Your task to perform on an android device: make emails show in primary in the gmail app Image 0: 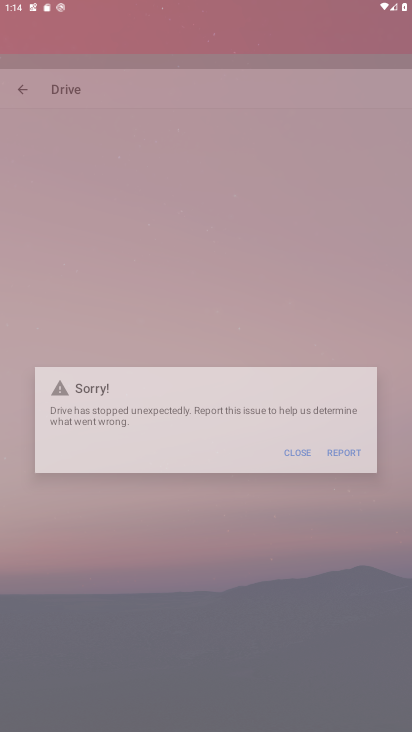
Step 0: click (360, 126)
Your task to perform on an android device: make emails show in primary in the gmail app Image 1: 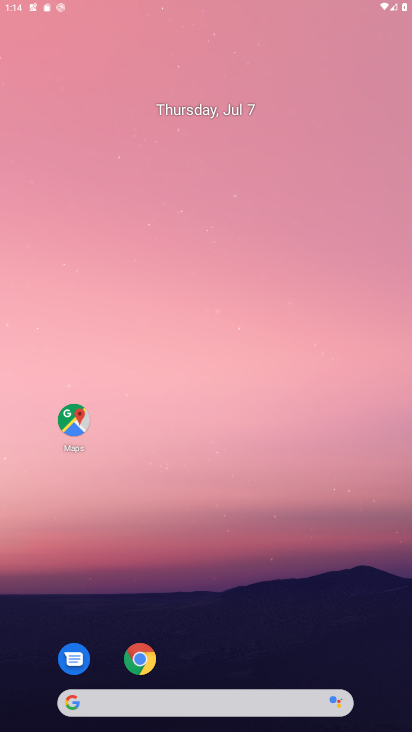
Step 1: drag from (216, 668) to (279, 263)
Your task to perform on an android device: make emails show in primary in the gmail app Image 2: 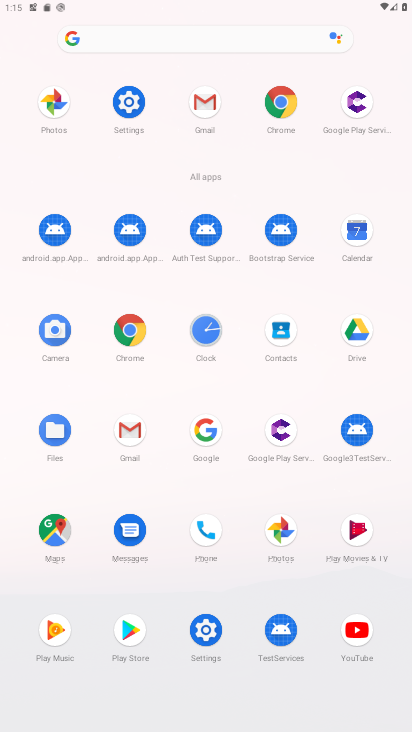
Step 2: drag from (241, 624) to (227, 270)
Your task to perform on an android device: make emails show in primary in the gmail app Image 3: 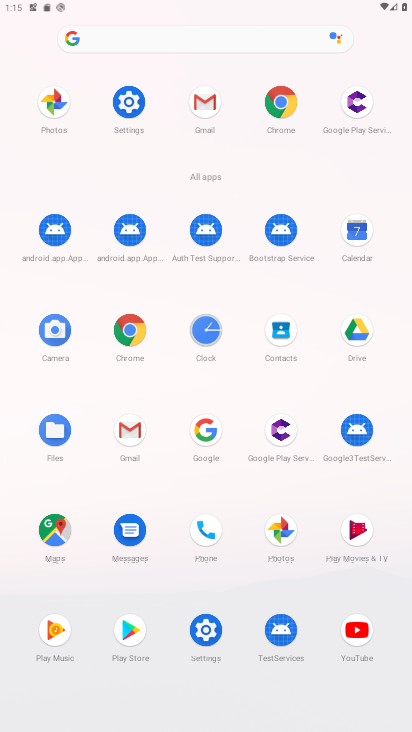
Step 3: click (124, 435)
Your task to perform on an android device: make emails show in primary in the gmail app Image 4: 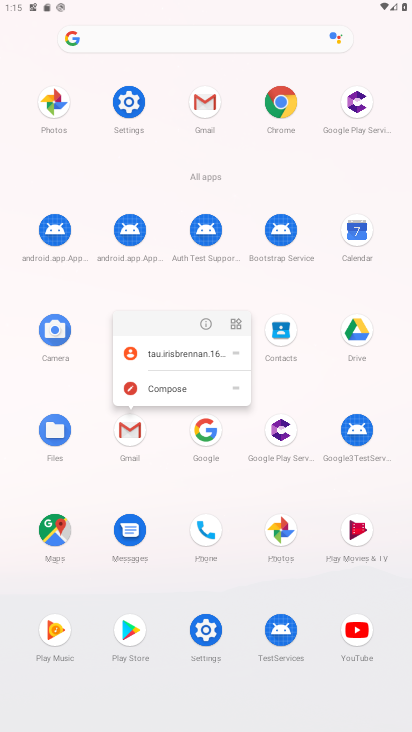
Step 4: click (202, 319)
Your task to perform on an android device: make emails show in primary in the gmail app Image 5: 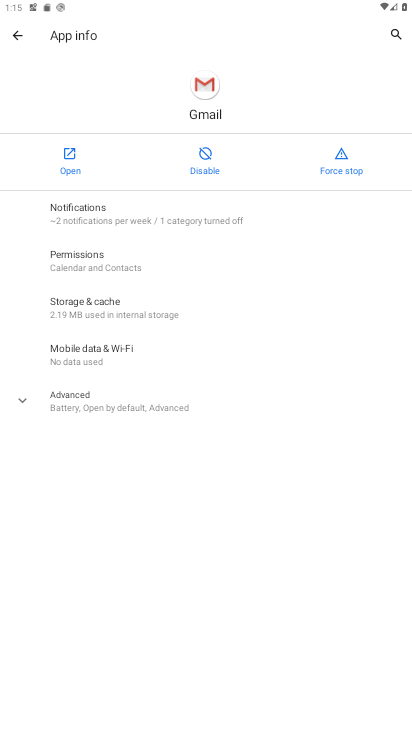
Step 5: click (65, 168)
Your task to perform on an android device: make emails show in primary in the gmail app Image 6: 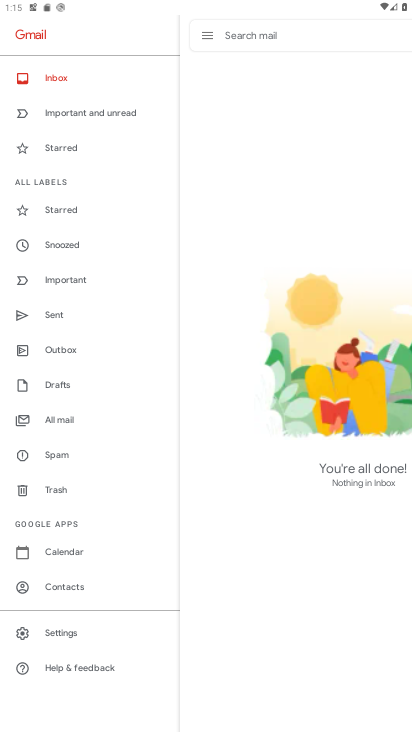
Step 6: click (58, 76)
Your task to perform on an android device: make emails show in primary in the gmail app Image 7: 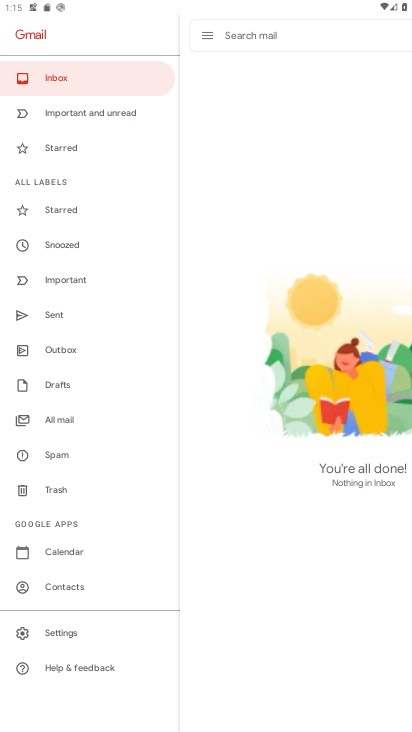
Step 7: task complete